Your task to perform on an android device: What's the weather going to be this weekend? Image 0: 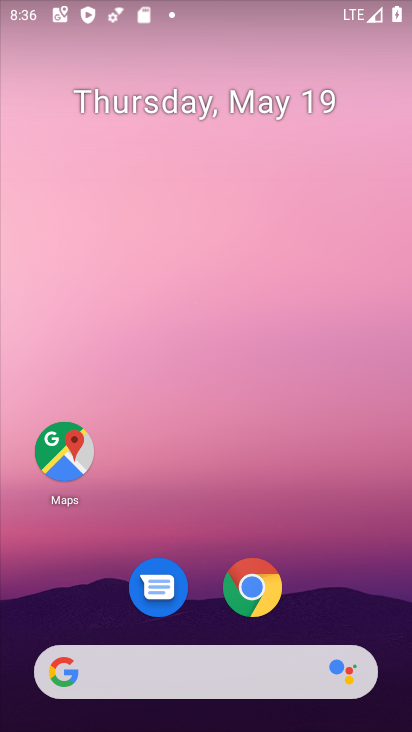
Step 0: drag from (315, 525) to (230, 27)
Your task to perform on an android device: What's the weather going to be this weekend? Image 1: 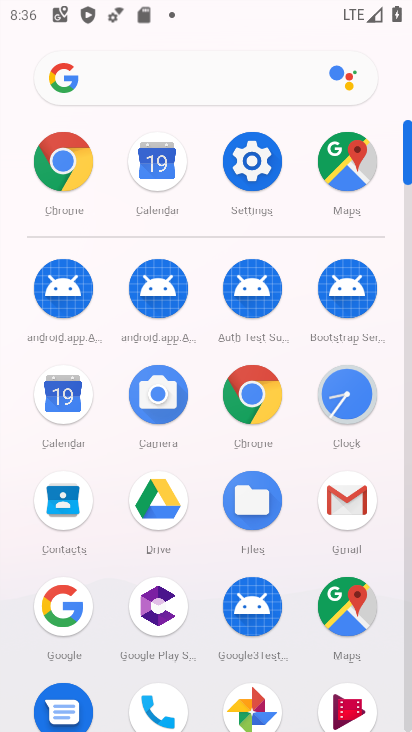
Step 1: drag from (9, 507) to (14, 243)
Your task to perform on an android device: What's the weather going to be this weekend? Image 2: 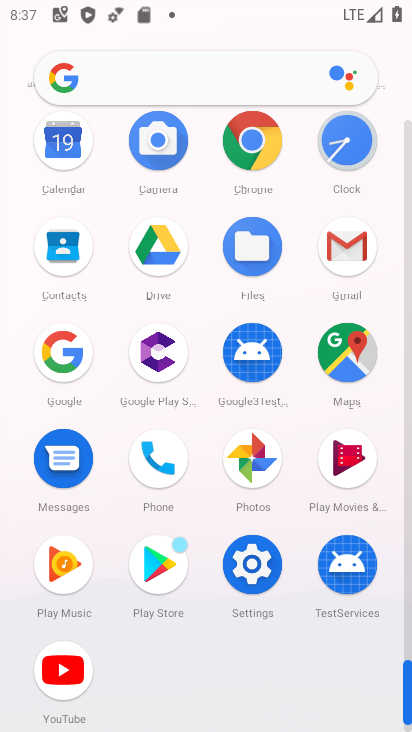
Step 2: click (253, 136)
Your task to perform on an android device: What's the weather going to be this weekend? Image 3: 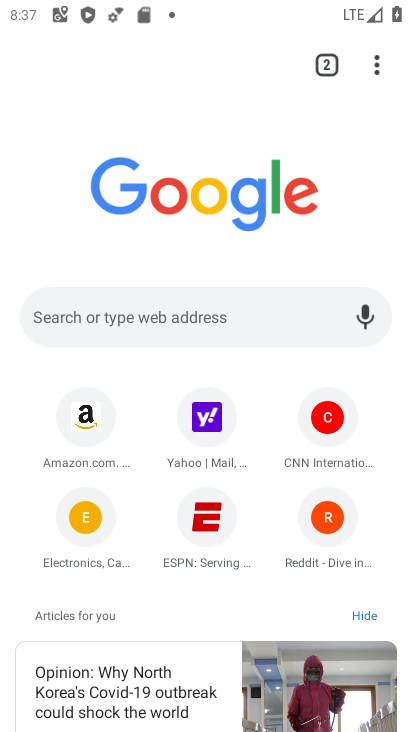
Step 3: click (75, 414)
Your task to perform on an android device: What's the weather going to be this weekend? Image 4: 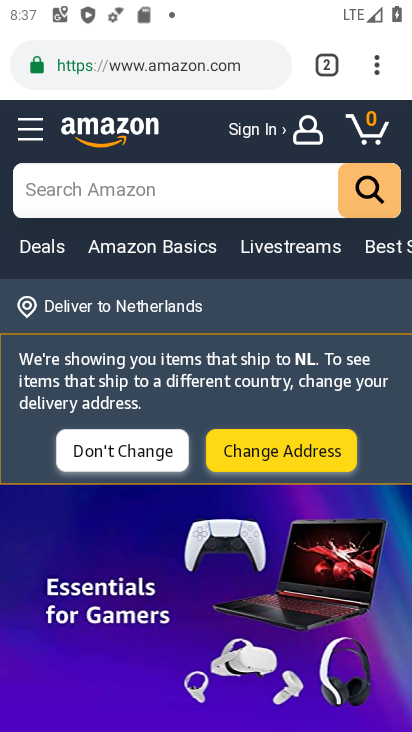
Step 4: task complete